Your task to perform on an android device: change your default location settings in chrome Image 0: 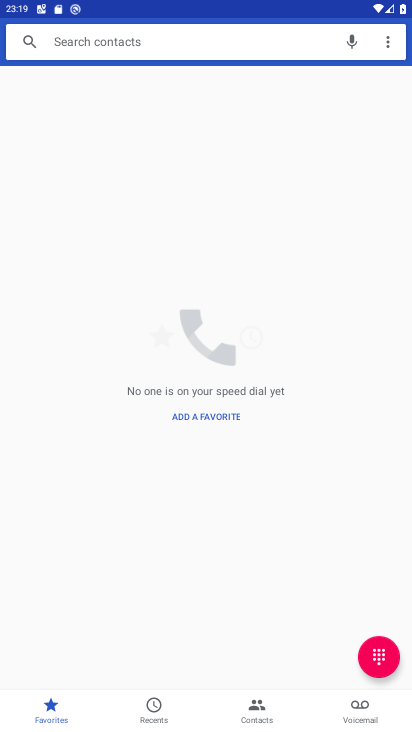
Step 0: press home button
Your task to perform on an android device: change your default location settings in chrome Image 1: 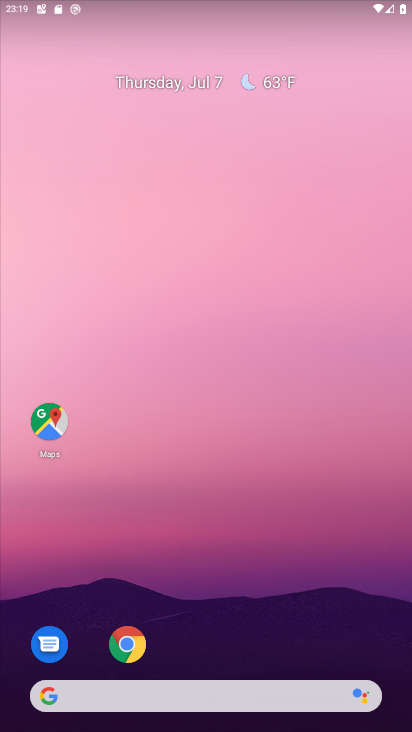
Step 1: drag from (207, 725) to (206, 154)
Your task to perform on an android device: change your default location settings in chrome Image 2: 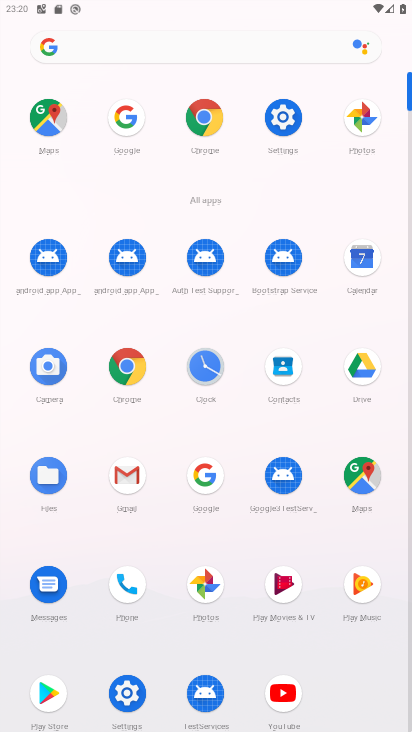
Step 2: click (126, 360)
Your task to perform on an android device: change your default location settings in chrome Image 3: 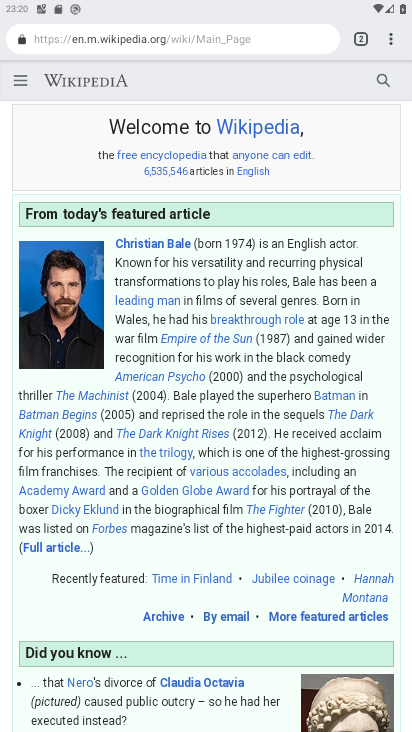
Step 3: click (390, 39)
Your task to perform on an android device: change your default location settings in chrome Image 4: 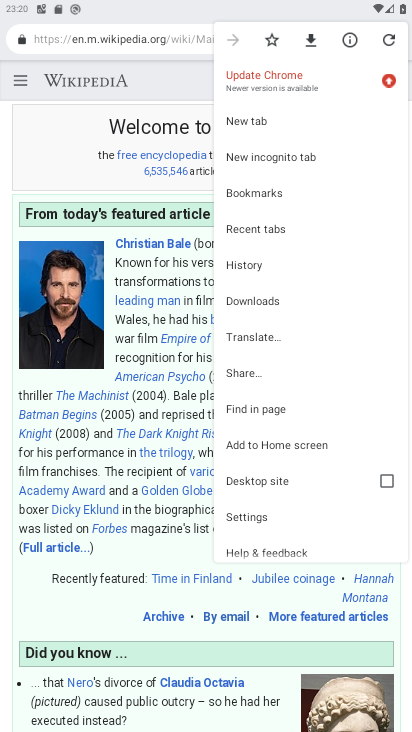
Step 4: click (248, 511)
Your task to perform on an android device: change your default location settings in chrome Image 5: 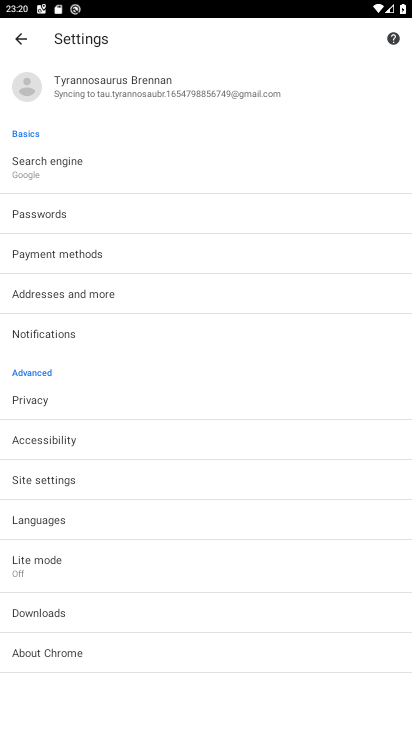
Step 5: drag from (165, 639) to (152, 589)
Your task to perform on an android device: change your default location settings in chrome Image 6: 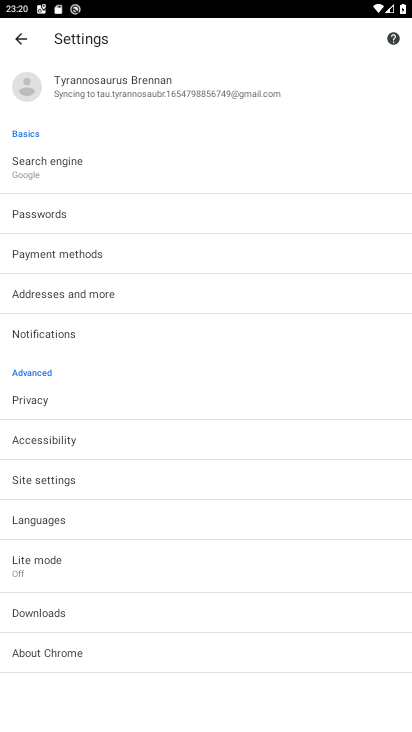
Step 6: click (40, 480)
Your task to perform on an android device: change your default location settings in chrome Image 7: 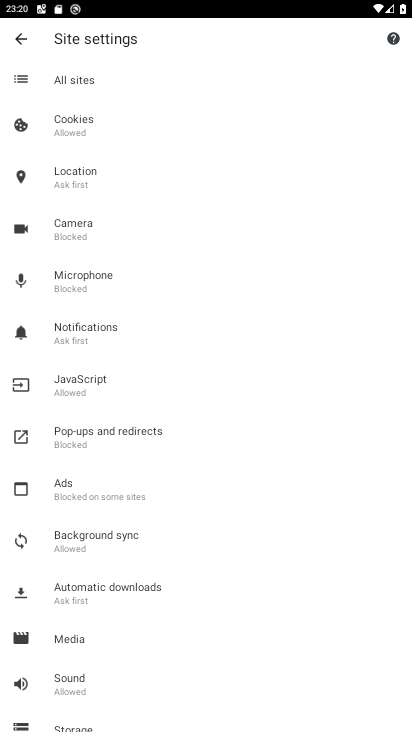
Step 7: click (70, 177)
Your task to perform on an android device: change your default location settings in chrome Image 8: 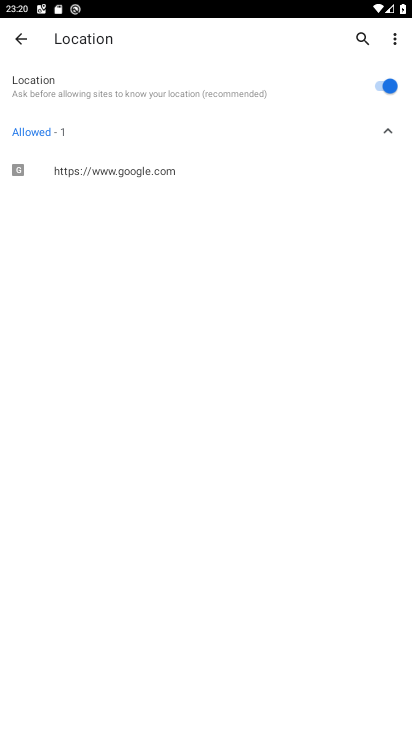
Step 8: click (378, 88)
Your task to perform on an android device: change your default location settings in chrome Image 9: 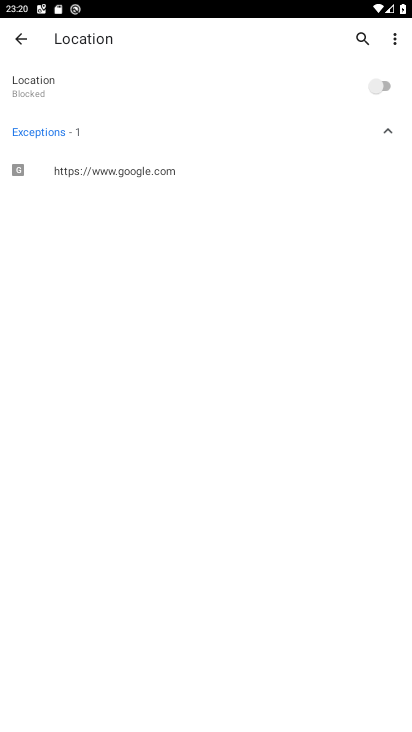
Step 9: task complete